Your task to perform on an android device: turn pop-ups off in chrome Image 0: 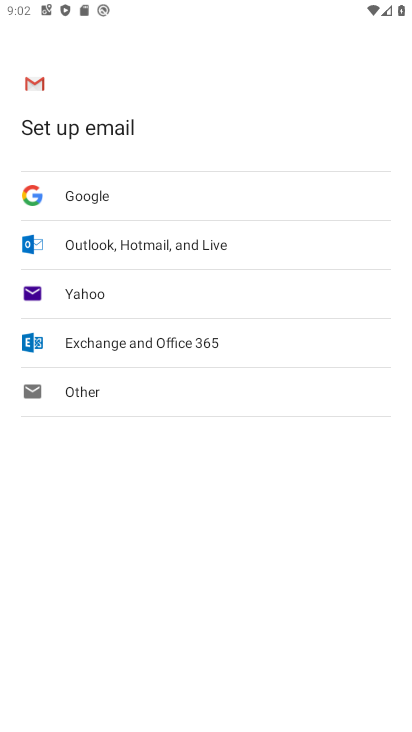
Step 0: press home button
Your task to perform on an android device: turn pop-ups off in chrome Image 1: 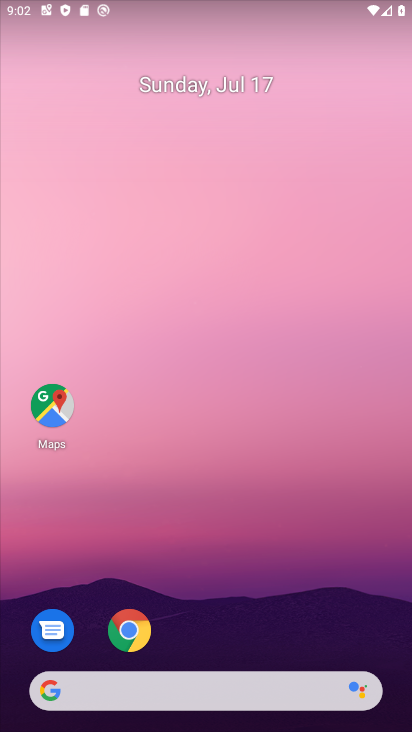
Step 1: drag from (343, 691) to (367, 457)
Your task to perform on an android device: turn pop-ups off in chrome Image 2: 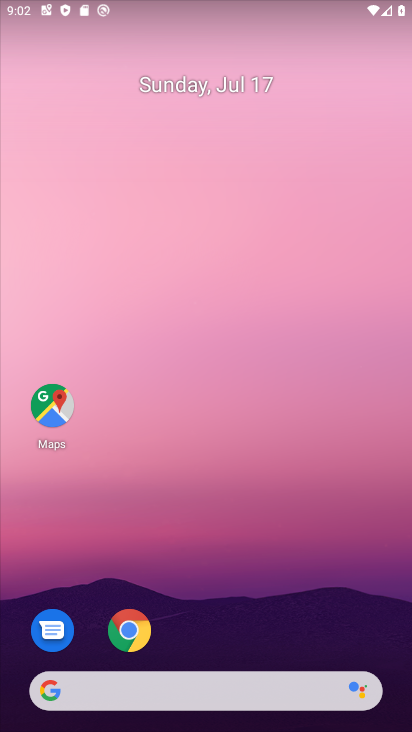
Step 2: drag from (228, 703) to (201, 84)
Your task to perform on an android device: turn pop-ups off in chrome Image 3: 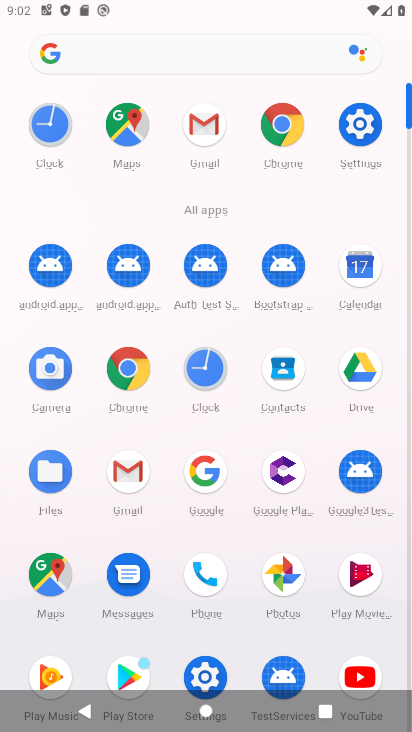
Step 3: click (126, 365)
Your task to perform on an android device: turn pop-ups off in chrome Image 4: 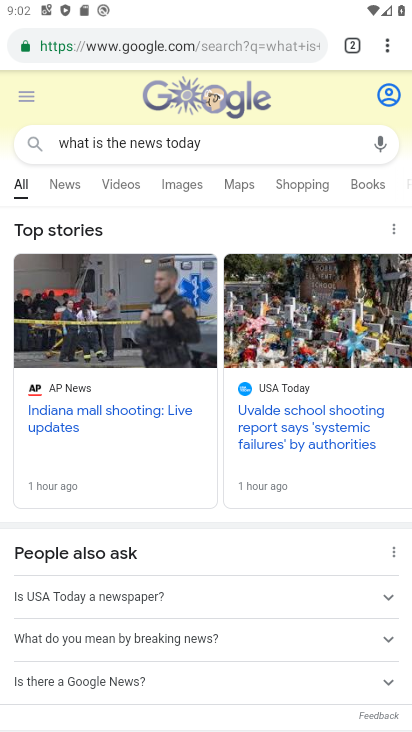
Step 4: click (384, 43)
Your task to perform on an android device: turn pop-ups off in chrome Image 5: 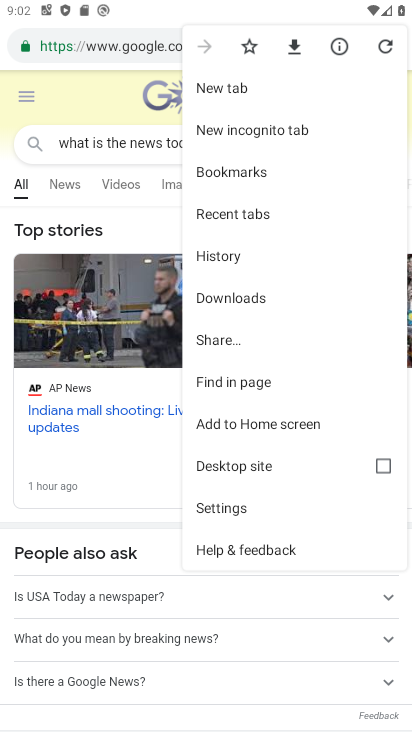
Step 5: click (262, 509)
Your task to perform on an android device: turn pop-ups off in chrome Image 6: 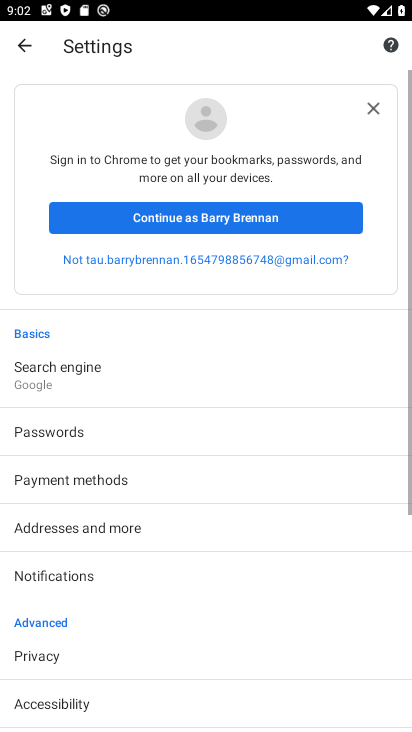
Step 6: drag from (234, 709) to (191, 281)
Your task to perform on an android device: turn pop-ups off in chrome Image 7: 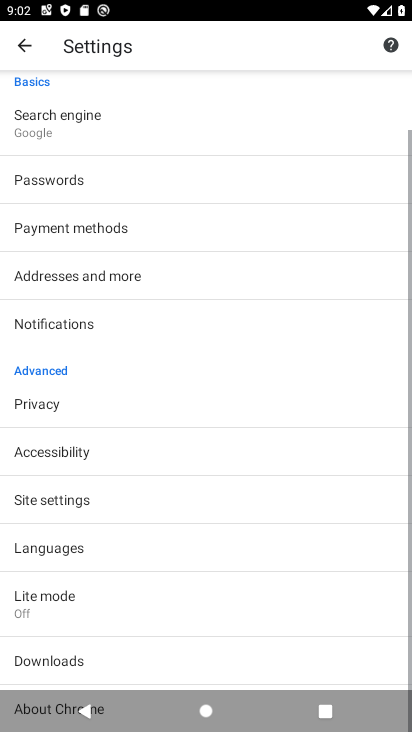
Step 7: click (99, 511)
Your task to perform on an android device: turn pop-ups off in chrome Image 8: 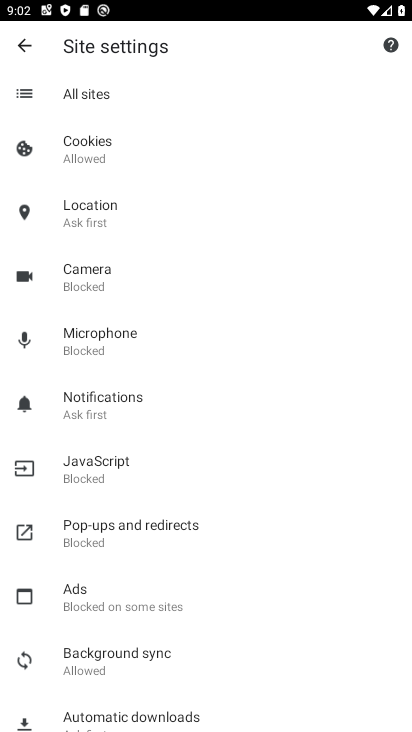
Step 8: click (127, 538)
Your task to perform on an android device: turn pop-ups off in chrome Image 9: 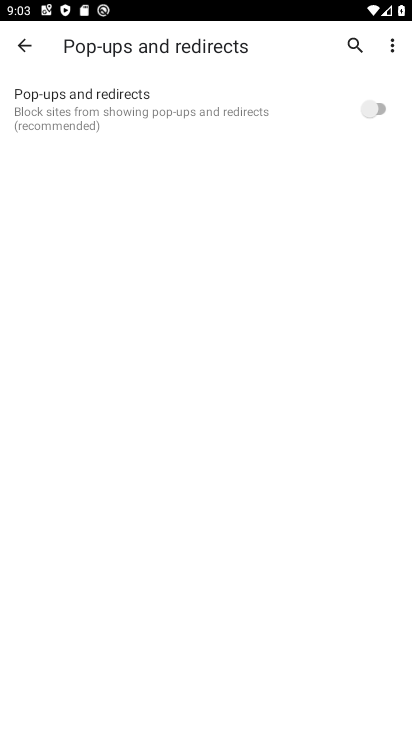
Step 9: task complete